Your task to perform on an android device: stop showing notifications on the lock screen Image 0: 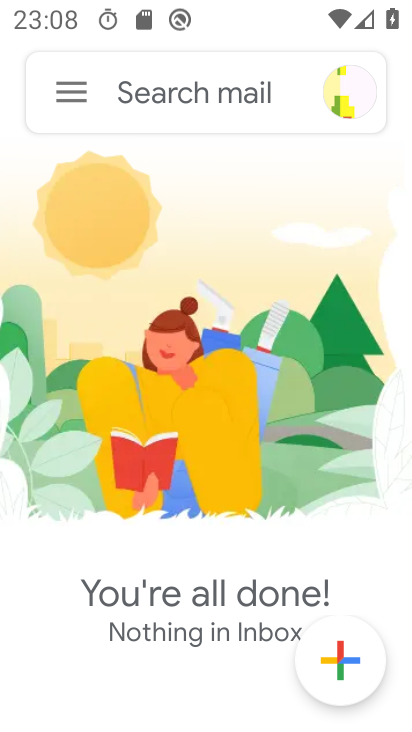
Step 0: press home button
Your task to perform on an android device: stop showing notifications on the lock screen Image 1: 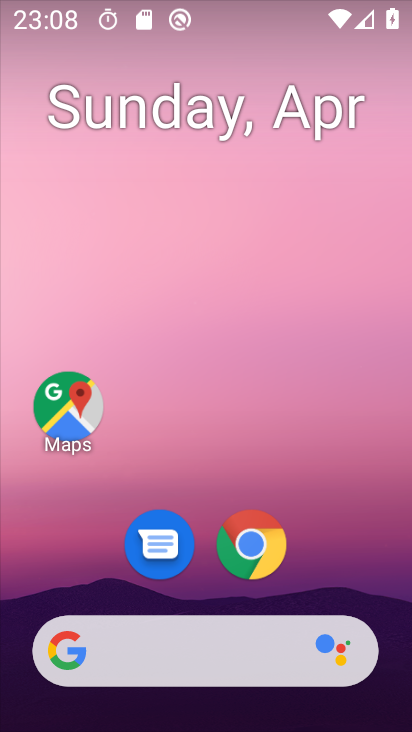
Step 1: drag from (302, 524) to (306, 346)
Your task to perform on an android device: stop showing notifications on the lock screen Image 2: 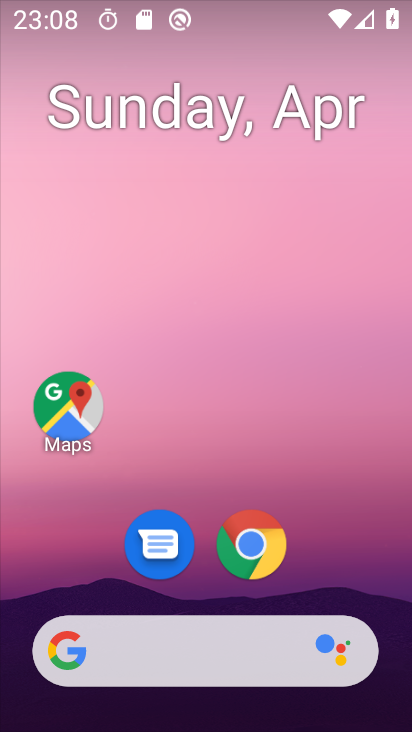
Step 2: drag from (323, 566) to (358, 225)
Your task to perform on an android device: stop showing notifications on the lock screen Image 3: 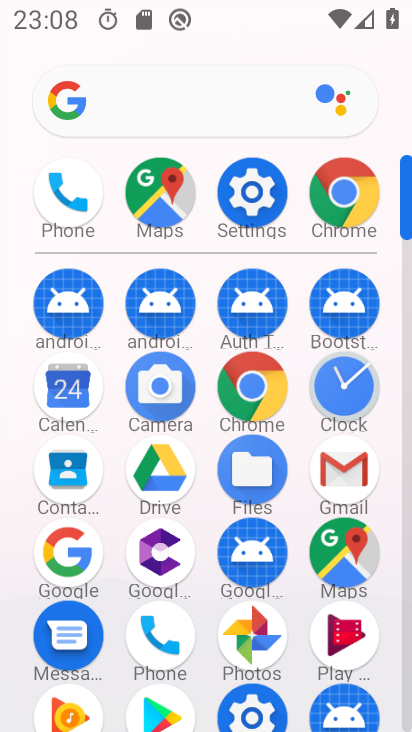
Step 3: click (230, 180)
Your task to perform on an android device: stop showing notifications on the lock screen Image 4: 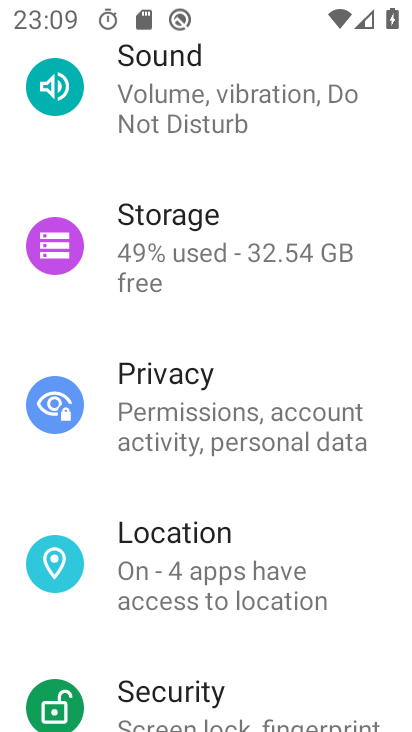
Step 4: click (237, 614)
Your task to perform on an android device: stop showing notifications on the lock screen Image 5: 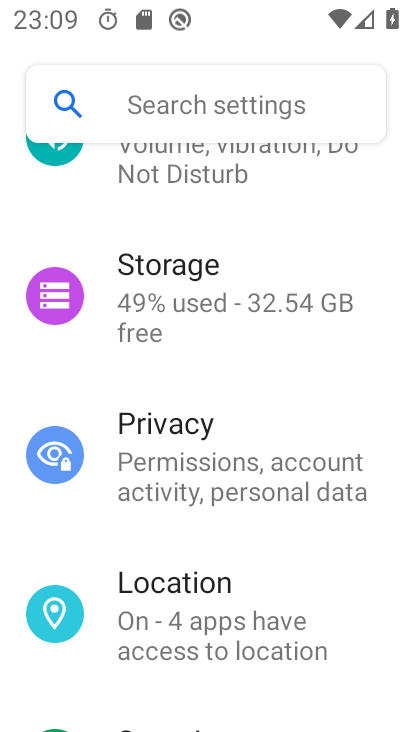
Step 5: drag from (259, 196) to (231, 702)
Your task to perform on an android device: stop showing notifications on the lock screen Image 6: 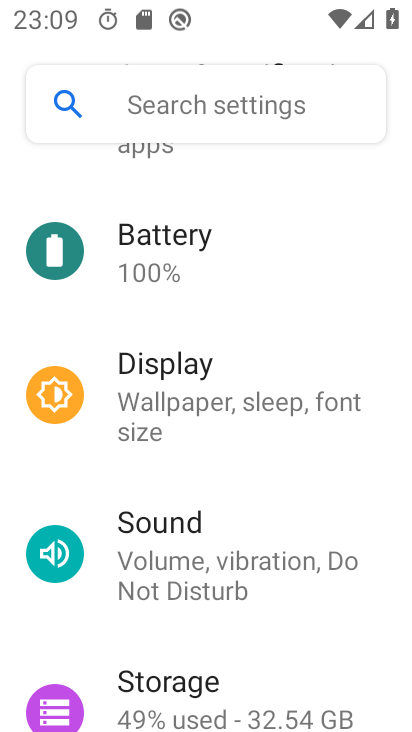
Step 6: drag from (222, 219) to (203, 729)
Your task to perform on an android device: stop showing notifications on the lock screen Image 7: 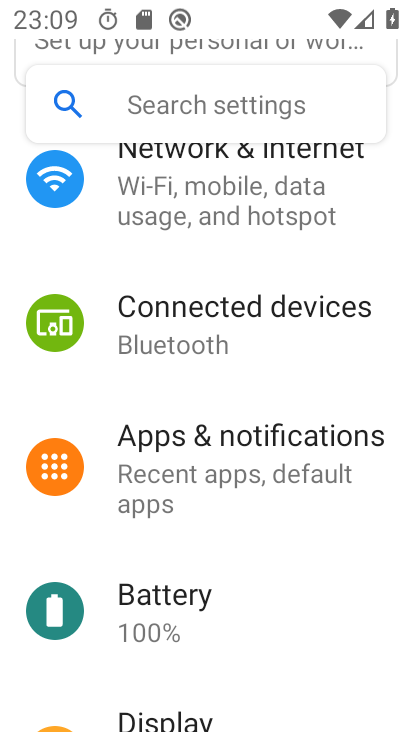
Step 7: click (241, 443)
Your task to perform on an android device: stop showing notifications on the lock screen Image 8: 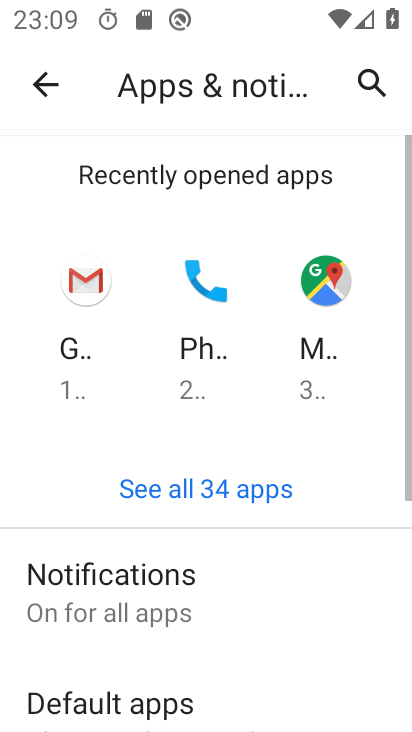
Step 8: click (178, 583)
Your task to perform on an android device: stop showing notifications on the lock screen Image 9: 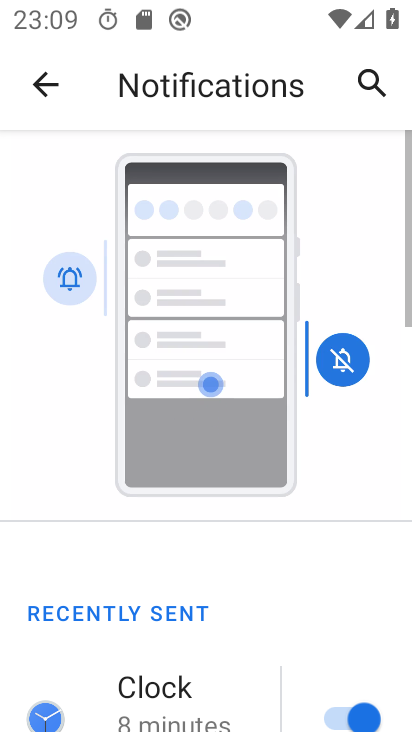
Step 9: drag from (217, 611) to (266, 154)
Your task to perform on an android device: stop showing notifications on the lock screen Image 10: 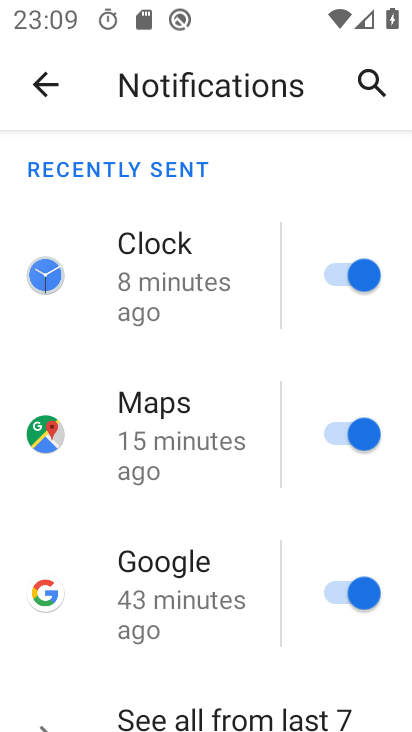
Step 10: drag from (190, 622) to (232, 116)
Your task to perform on an android device: stop showing notifications on the lock screen Image 11: 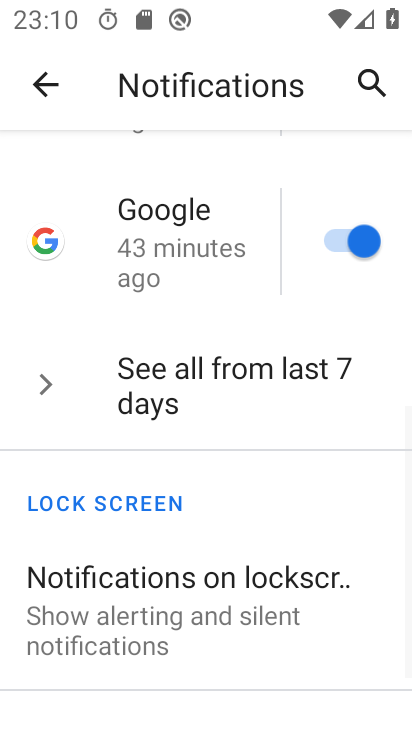
Step 11: click (154, 597)
Your task to perform on an android device: stop showing notifications on the lock screen Image 12: 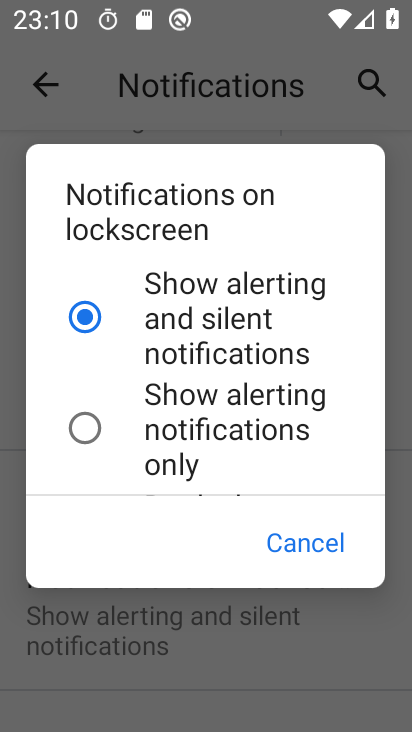
Step 12: drag from (190, 385) to (219, 145)
Your task to perform on an android device: stop showing notifications on the lock screen Image 13: 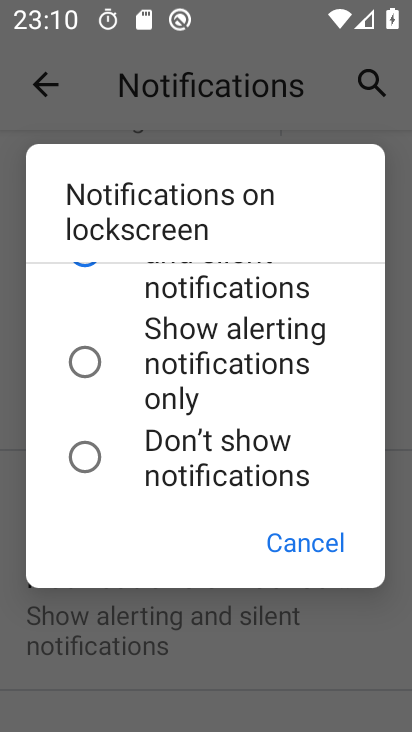
Step 13: click (136, 459)
Your task to perform on an android device: stop showing notifications on the lock screen Image 14: 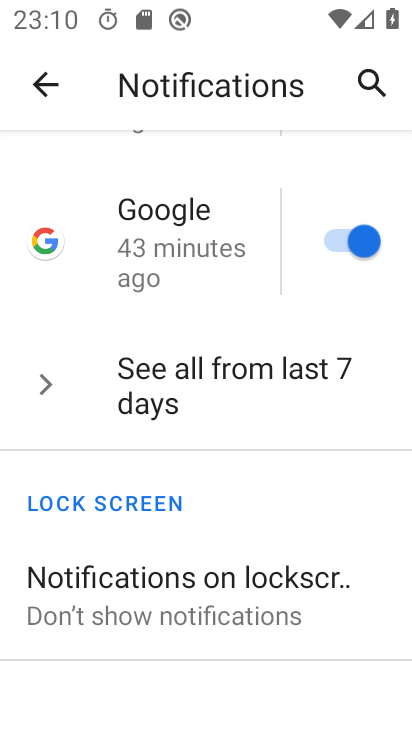
Step 14: task complete